Your task to perform on an android device: Open wifi settings Image 0: 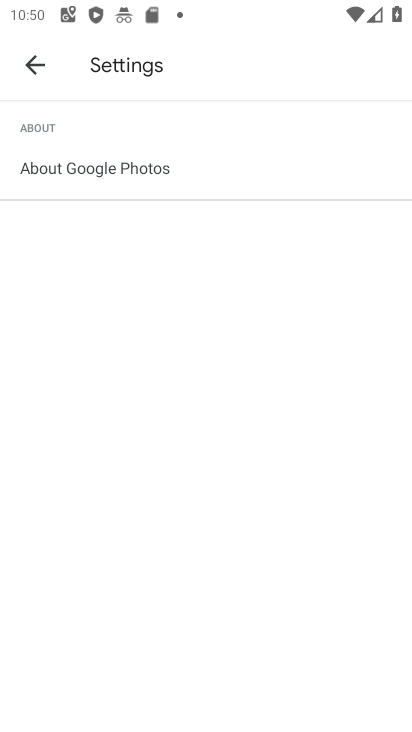
Step 0: press home button
Your task to perform on an android device: Open wifi settings Image 1: 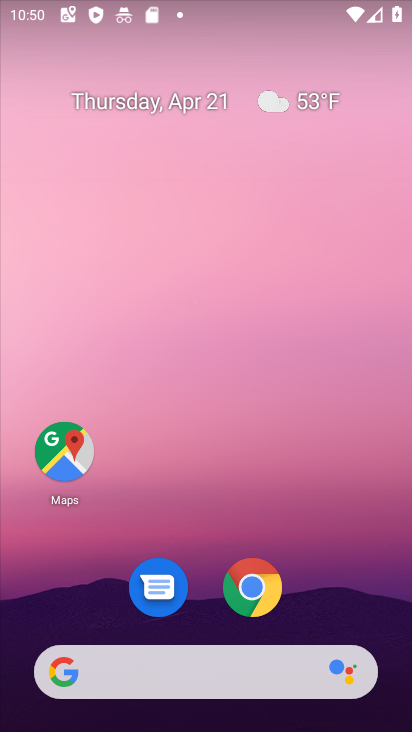
Step 1: drag from (192, 658) to (228, 58)
Your task to perform on an android device: Open wifi settings Image 2: 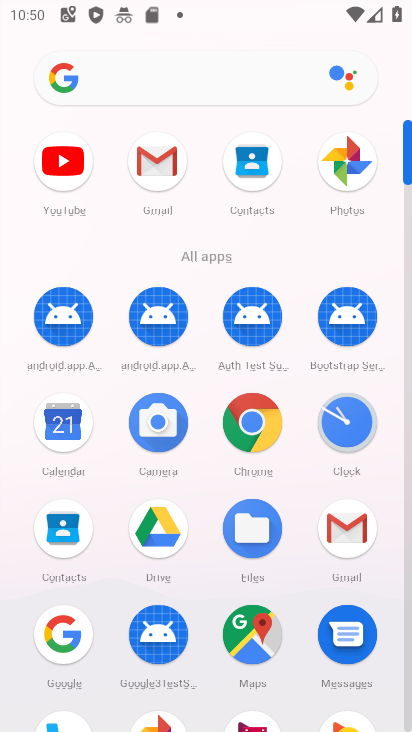
Step 2: drag from (189, 475) to (58, 10)
Your task to perform on an android device: Open wifi settings Image 3: 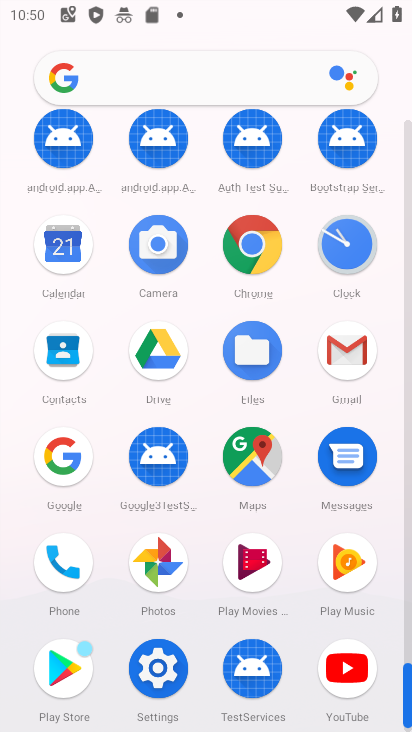
Step 3: click (177, 677)
Your task to perform on an android device: Open wifi settings Image 4: 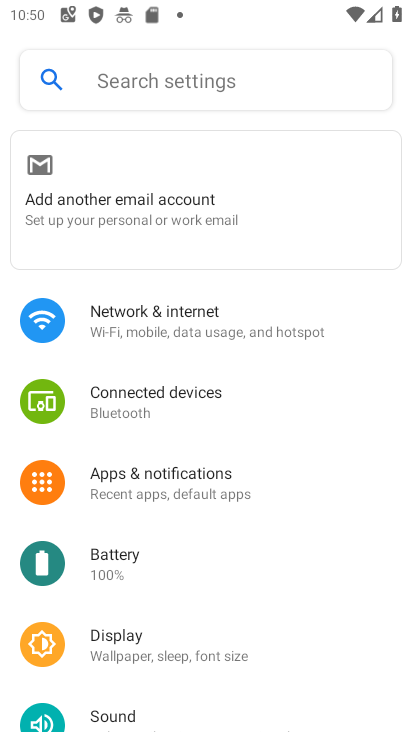
Step 4: click (168, 333)
Your task to perform on an android device: Open wifi settings Image 5: 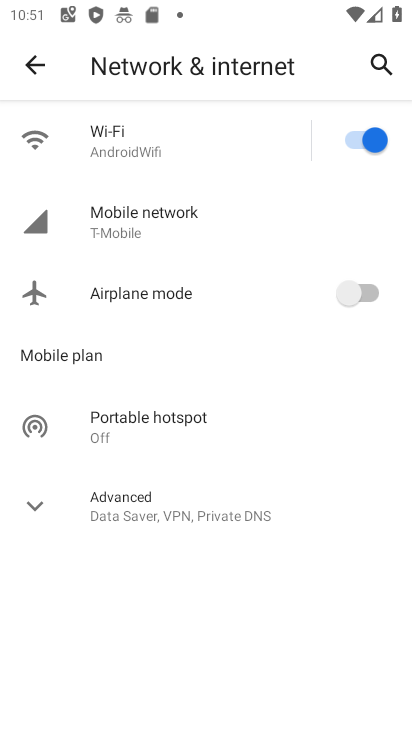
Step 5: click (98, 132)
Your task to perform on an android device: Open wifi settings Image 6: 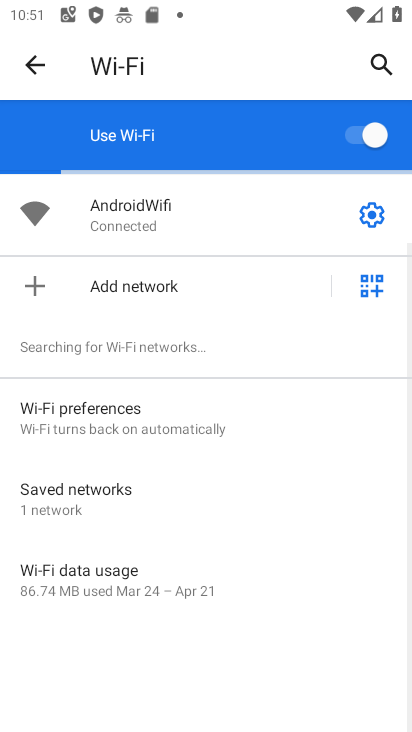
Step 6: task complete